Your task to perform on an android device: stop showing notifications on the lock screen Image 0: 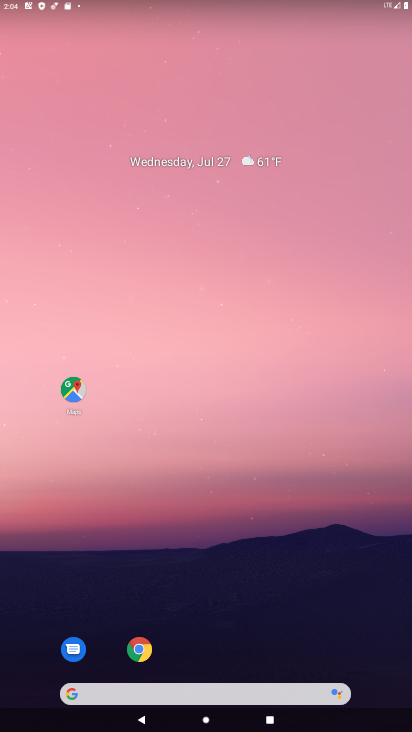
Step 0: press home button
Your task to perform on an android device: stop showing notifications on the lock screen Image 1: 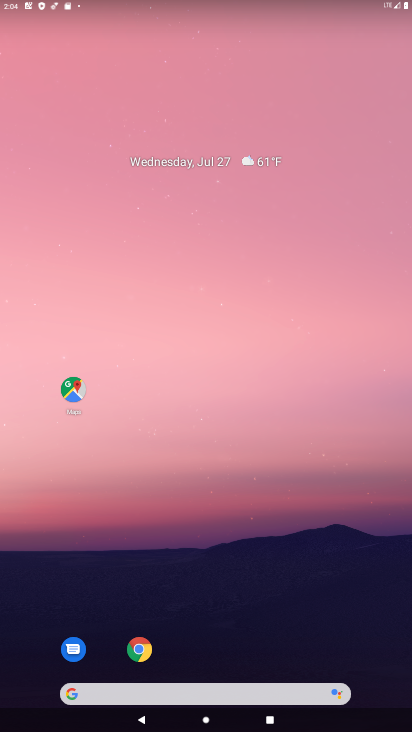
Step 1: drag from (207, 652) to (210, 63)
Your task to perform on an android device: stop showing notifications on the lock screen Image 2: 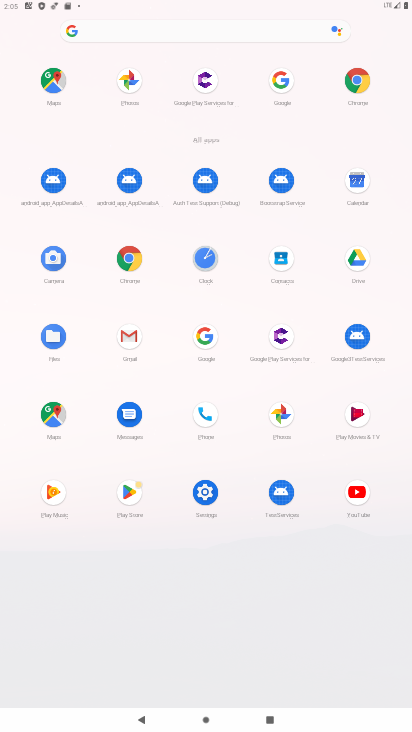
Step 2: click (205, 490)
Your task to perform on an android device: stop showing notifications on the lock screen Image 3: 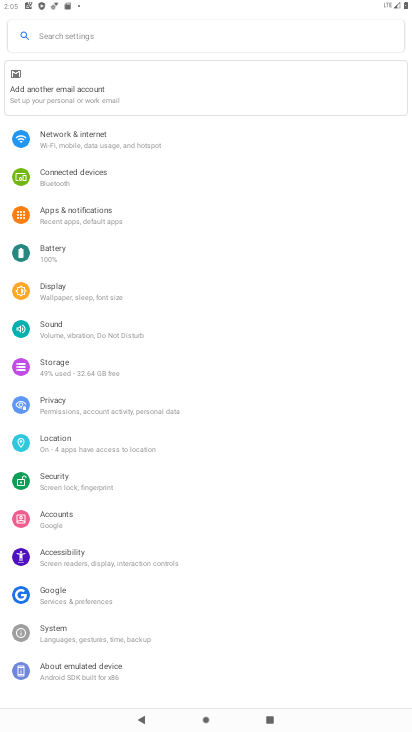
Step 3: click (59, 205)
Your task to perform on an android device: stop showing notifications on the lock screen Image 4: 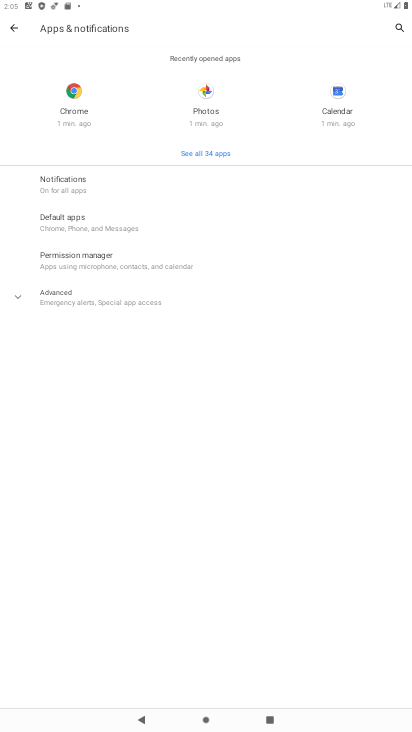
Step 4: click (64, 183)
Your task to perform on an android device: stop showing notifications on the lock screen Image 5: 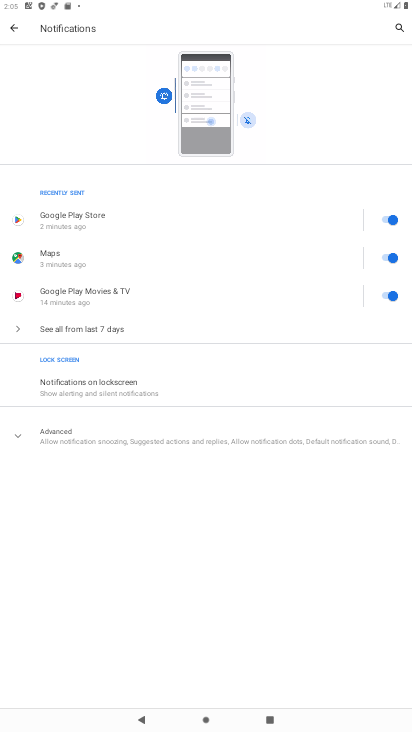
Step 5: click (60, 386)
Your task to perform on an android device: stop showing notifications on the lock screen Image 6: 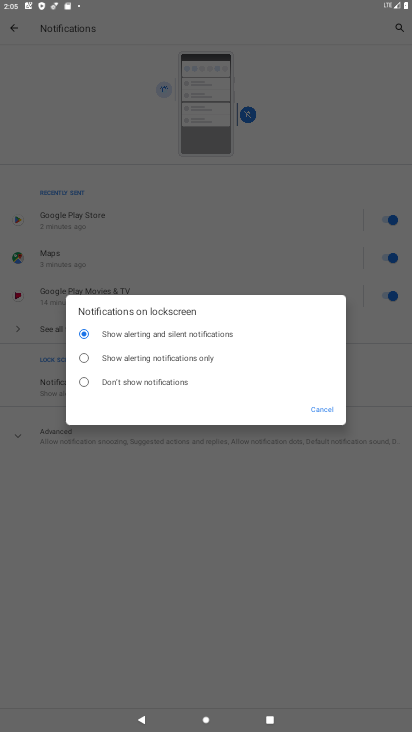
Step 6: click (82, 386)
Your task to perform on an android device: stop showing notifications on the lock screen Image 7: 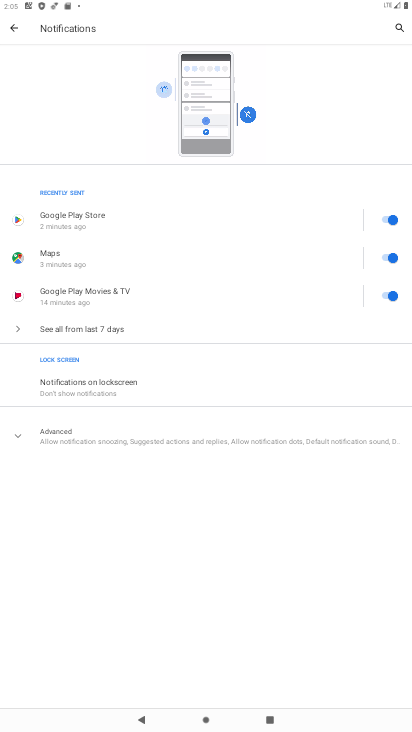
Step 7: task complete